Your task to perform on an android device: toggle priority inbox in the gmail app Image 0: 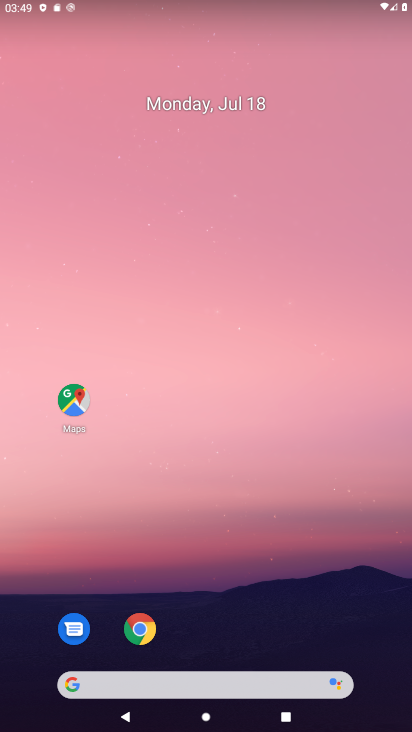
Step 0: drag from (384, 702) to (253, 94)
Your task to perform on an android device: toggle priority inbox in the gmail app Image 1: 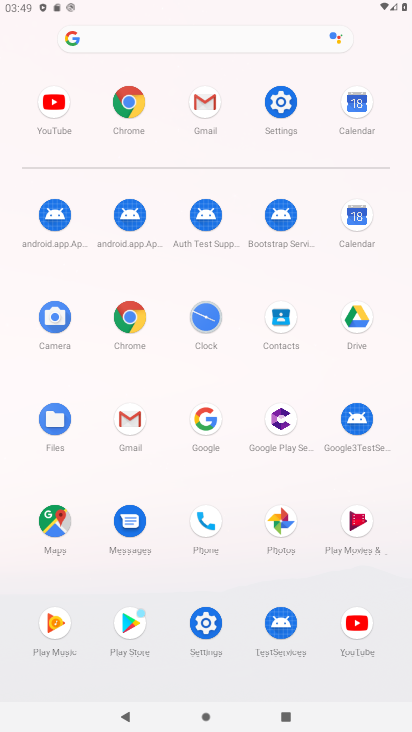
Step 1: click (124, 415)
Your task to perform on an android device: toggle priority inbox in the gmail app Image 2: 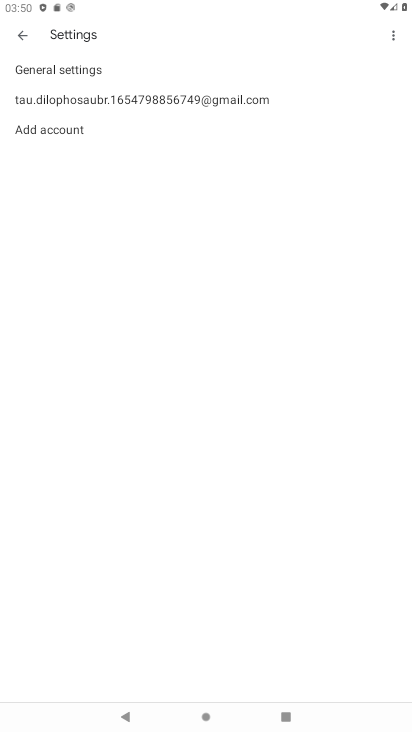
Step 2: click (131, 92)
Your task to perform on an android device: toggle priority inbox in the gmail app Image 3: 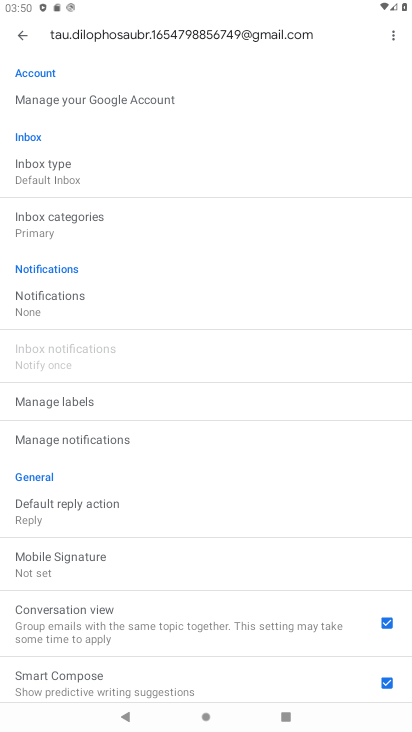
Step 3: click (29, 177)
Your task to perform on an android device: toggle priority inbox in the gmail app Image 4: 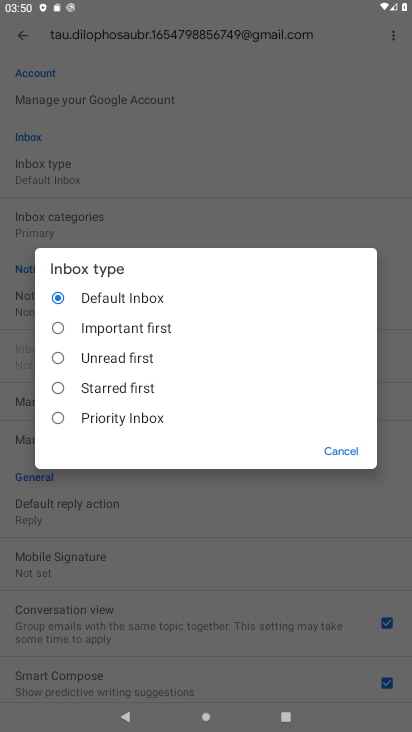
Step 4: click (129, 411)
Your task to perform on an android device: toggle priority inbox in the gmail app Image 5: 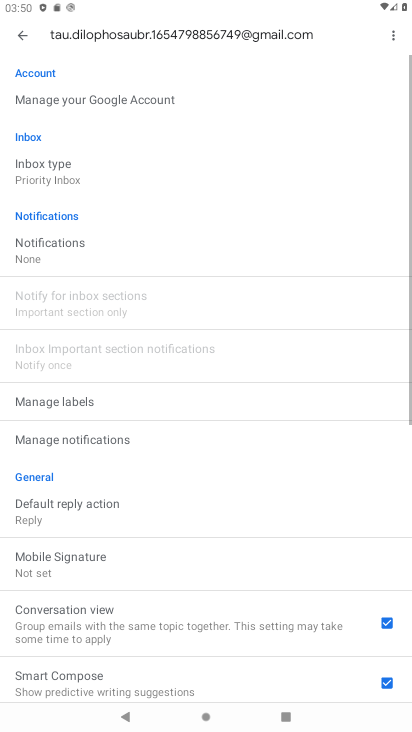
Step 5: task complete